Your task to perform on an android device: Open the map Image 0: 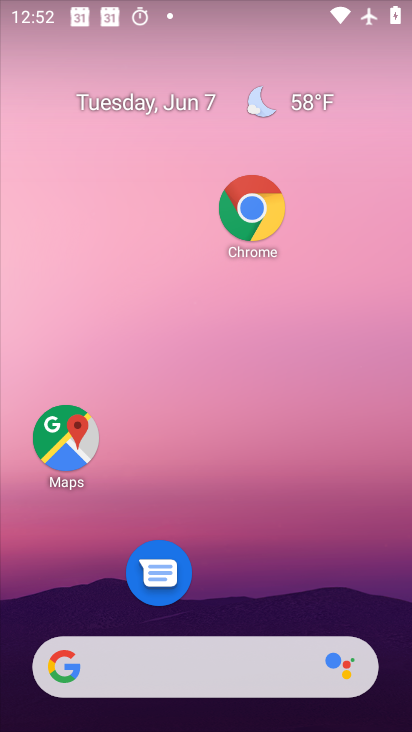
Step 0: click (53, 421)
Your task to perform on an android device: Open the map Image 1: 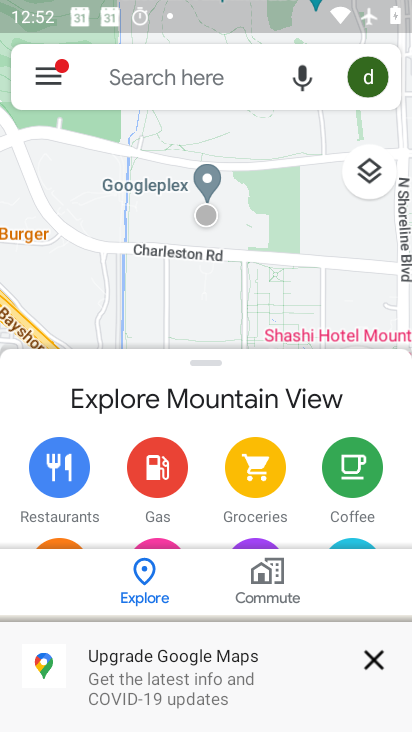
Step 1: task complete